Your task to perform on an android device: read, delete, or share a saved page in the chrome app Image 0: 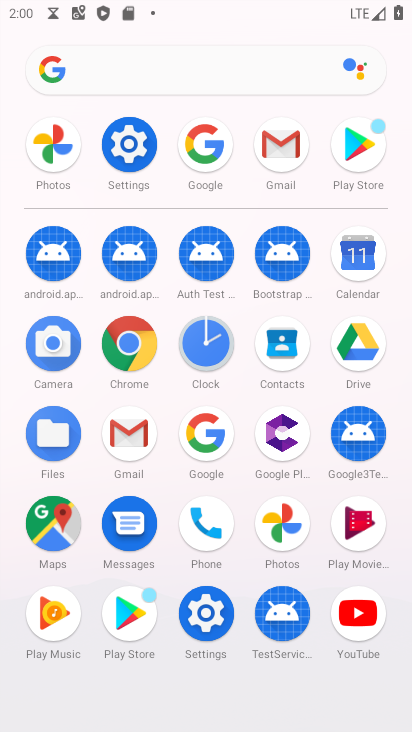
Step 0: click (130, 345)
Your task to perform on an android device: read, delete, or share a saved page in the chrome app Image 1: 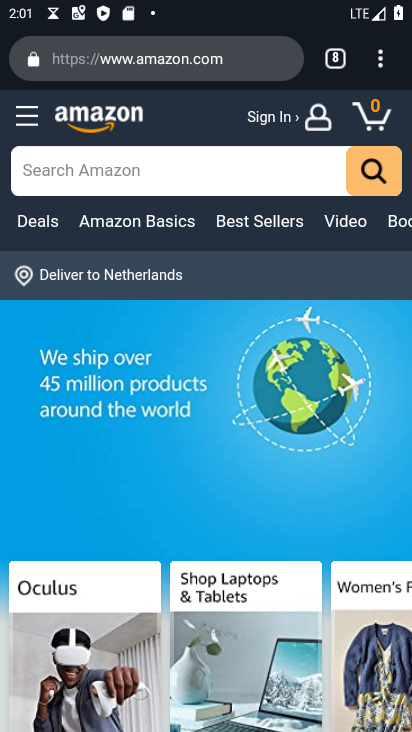
Step 1: click (384, 63)
Your task to perform on an android device: read, delete, or share a saved page in the chrome app Image 2: 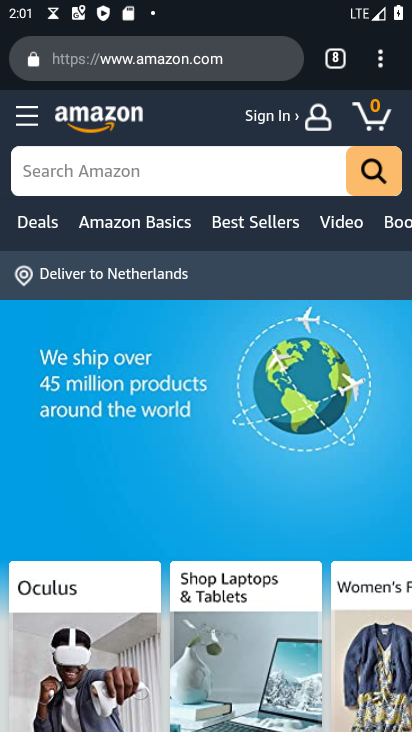
Step 2: click (377, 55)
Your task to perform on an android device: read, delete, or share a saved page in the chrome app Image 3: 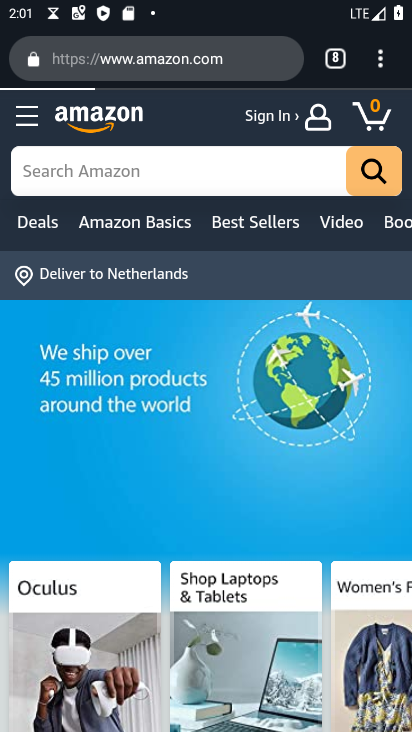
Step 3: click (373, 50)
Your task to perform on an android device: read, delete, or share a saved page in the chrome app Image 4: 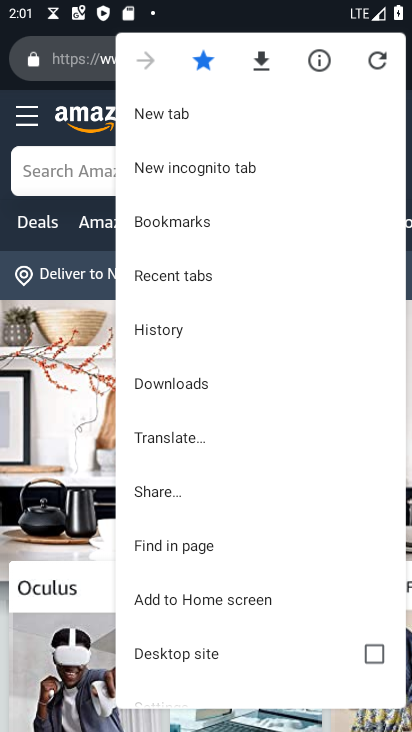
Step 4: drag from (238, 600) to (225, 230)
Your task to perform on an android device: read, delete, or share a saved page in the chrome app Image 5: 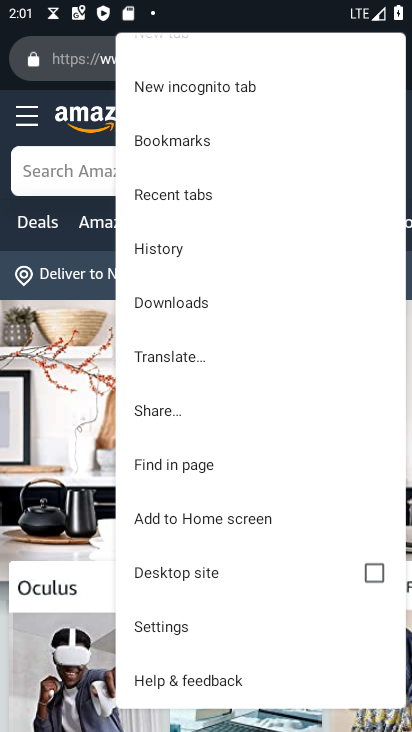
Step 5: click (176, 623)
Your task to perform on an android device: read, delete, or share a saved page in the chrome app Image 6: 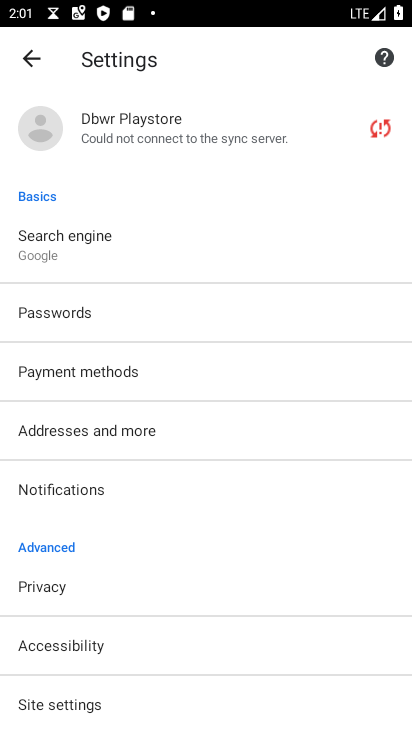
Step 6: click (37, 56)
Your task to perform on an android device: read, delete, or share a saved page in the chrome app Image 7: 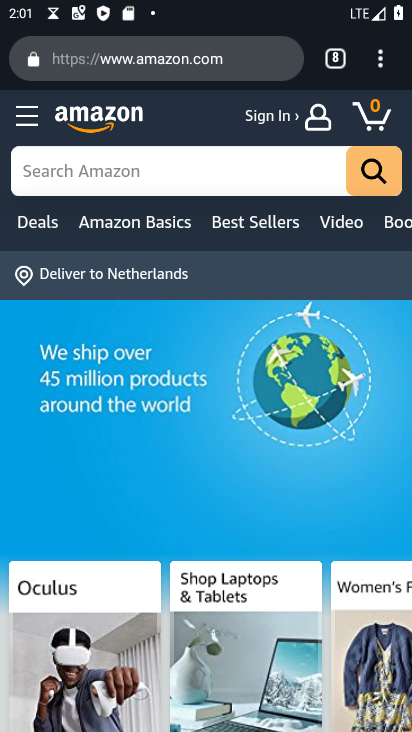
Step 7: click (370, 62)
Your task to perform on an android device: read, delete, or share a saved page in the chrome app Image 8: 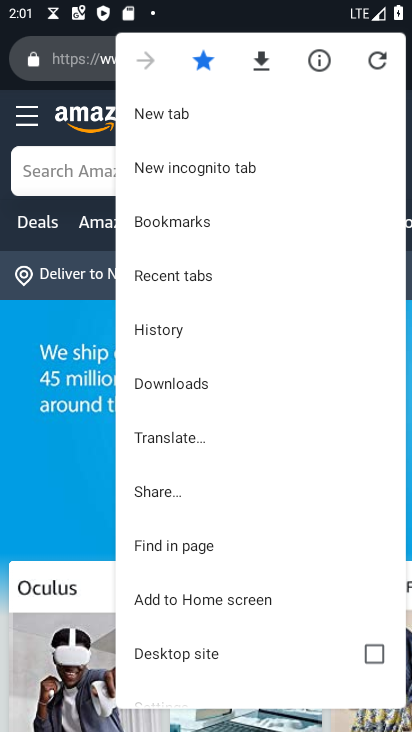
Step 8: click (188, 387)
Your task to perform on an android device: read, delete, or share a saved page in the chrome app Image 9: 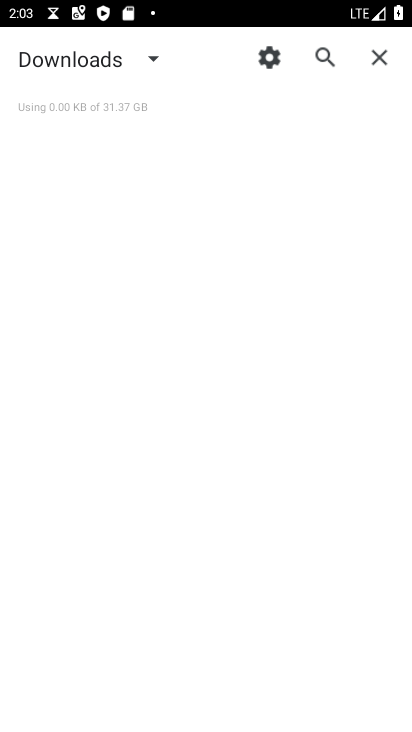
Step 9: task complete